Your task to perform on an android device: clear all cookies in the chrome app Image 0: 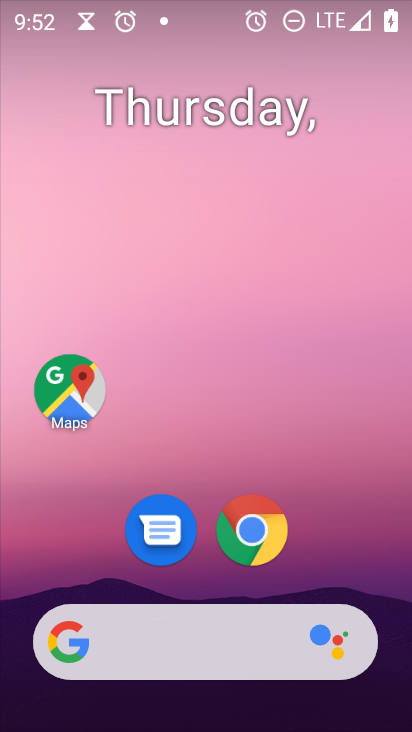
Step 0: drag from (322, 539) to (242, 62)
Your task to perform on an android device: clear all cookies in the chrome app Image 1: 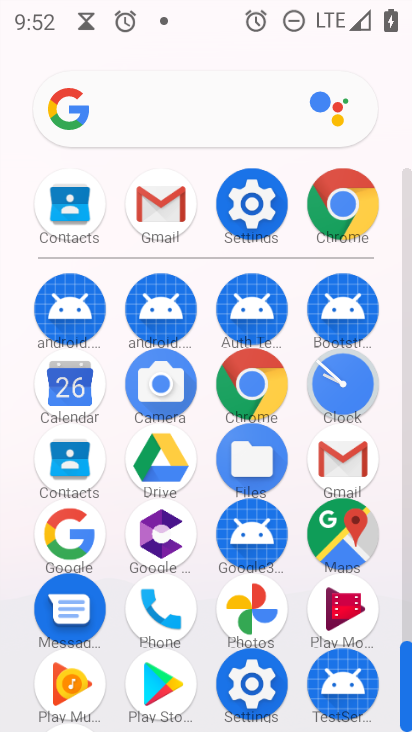
Step 1: drag from (24, 587) to (26, 281)
Your task to perform on an android device: clear all cookies in the chrome app Image 2: 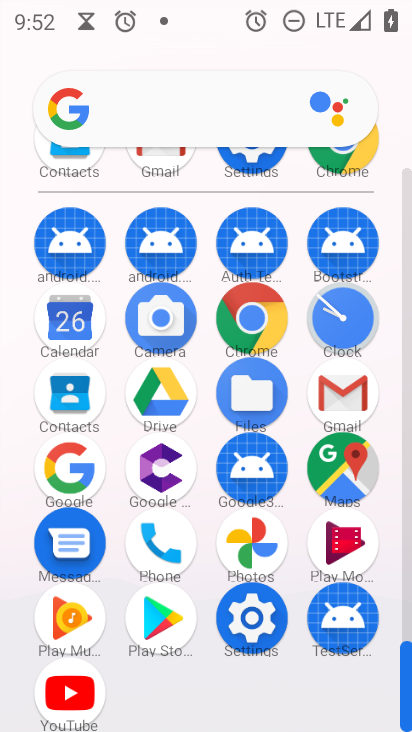
Step 2: click (244, 313)
Your task to perform on an android device: clear all cookies in the chrome app Image 3: 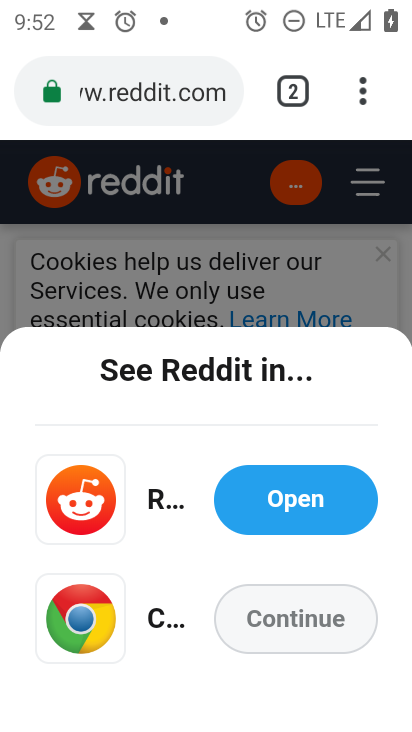
Step 3: drag from (355, 88) to (147, 555)
Your task to perform on an android device: clear all cookies in the chrome app Image 4: 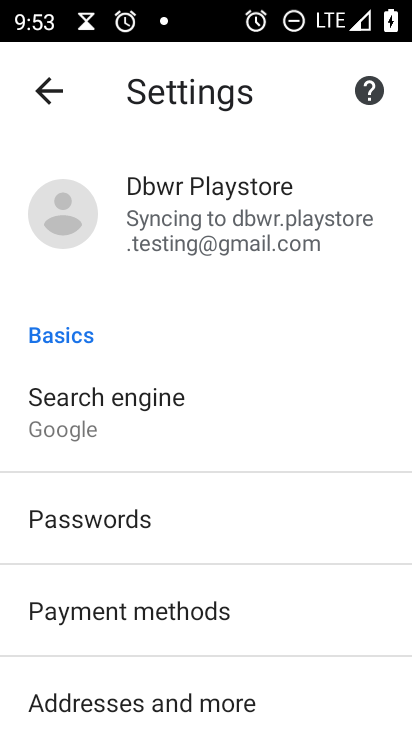
Step 4: drag from (249, 579) to (275, 192)
Your task to perform on an android device: clear all cookies in the chrome app Image 5: 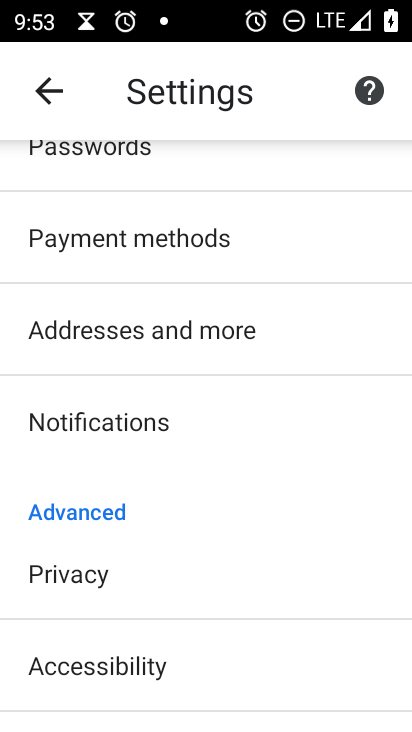
Step 5: click (120, 576)
Your task to perform on an android device: clear all cookies in the chrome app Image 6: 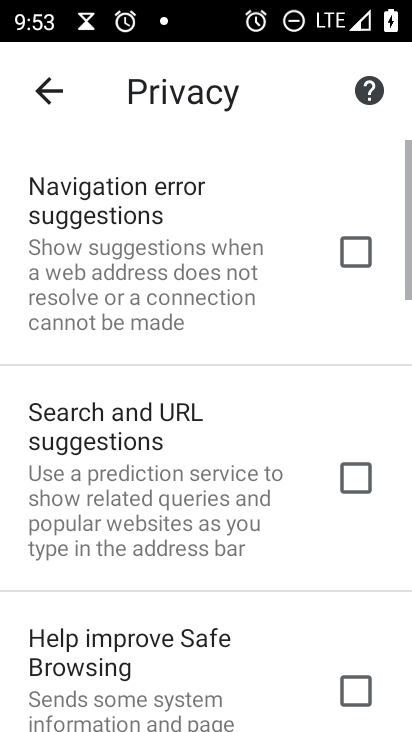
Step 6: drag from (161, 617) to (174, 255)
Your task to perform on an android device: clear all cookies in the chrome app Image 7: 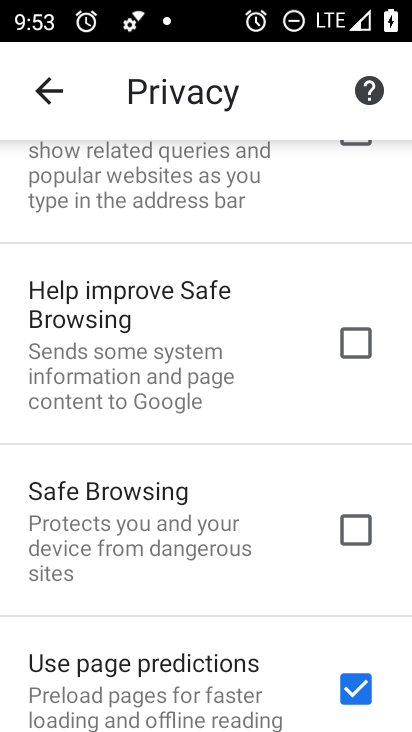
Step 7: drag from (206, 595) to (205, 181)
Your task to perform on an android device: clear all cookies in the chrome app Image 8: 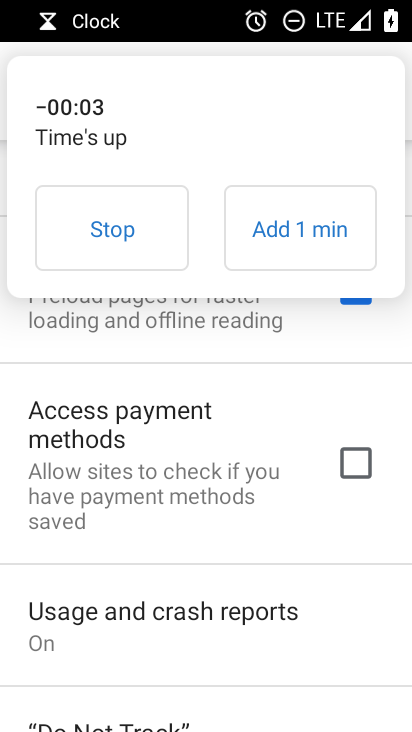
Step 8: click (117, 232)
Your task to perform on an android device: clear all cookies in the chrome app Image 9: 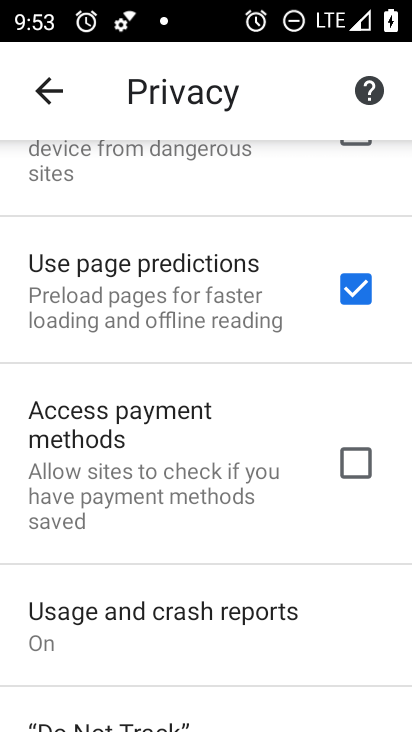
Step 9: drag from (236, 608) to (228, 199)
Your task to perform on an android device: clear all cookies in the chrome app Image 10: 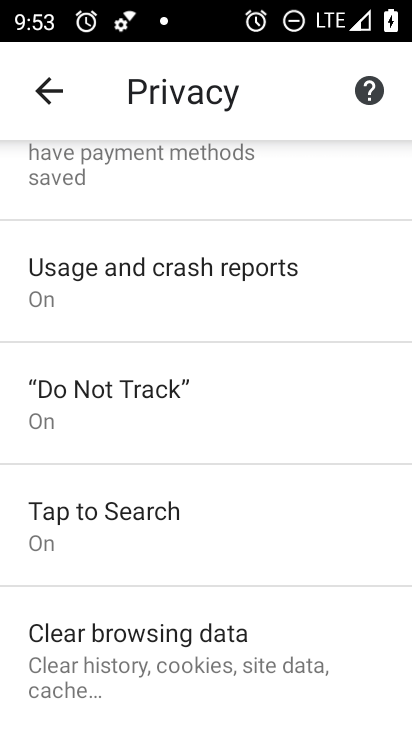
Step 10: drag from (202, 592) to (220, 213)
Your task to perform on an android device: clear all cookies in the chrome app Image 11: 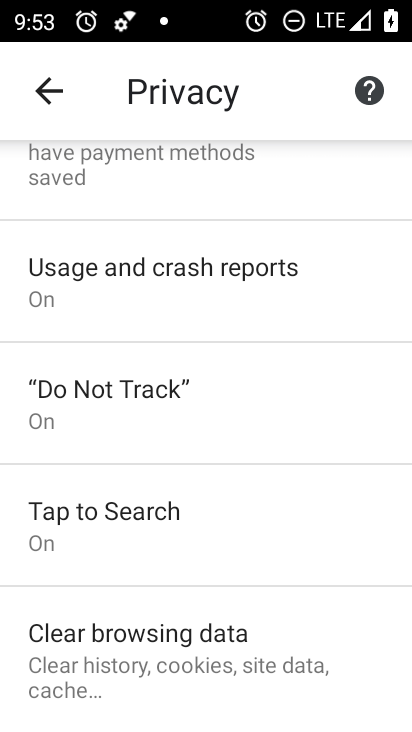
Step 11: click (221, 627)
Your task to perform on an android device: clear all cookies in the chrome app Image 12: 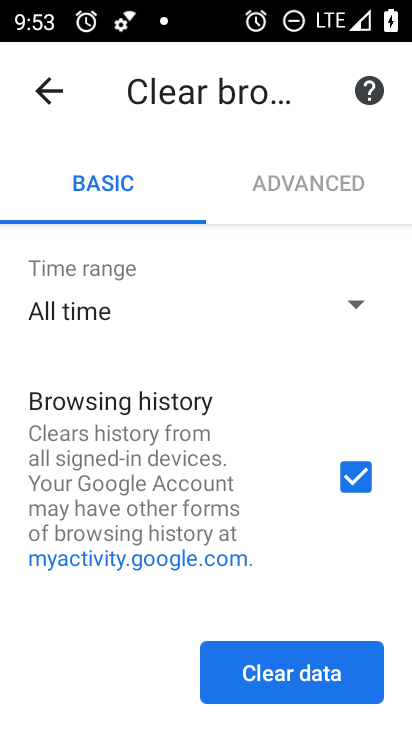
Step 12: drag from (165, 561) to (175, 303)
Your task to perform on an android device: clear all cookies in the chrome app Image 13: 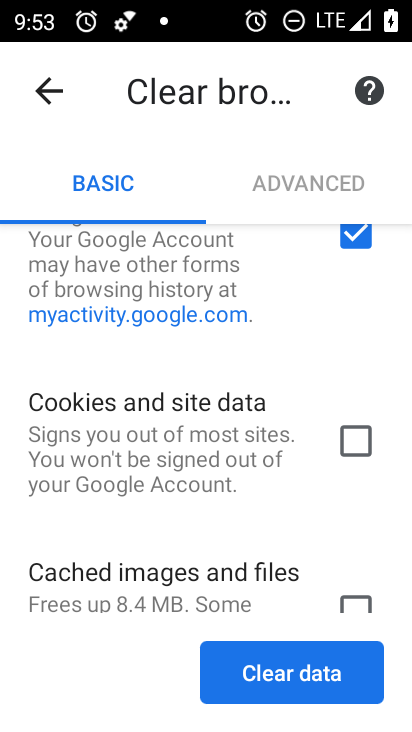
Step 13: click (341, 449)
Your task to perform on an android device: clear all cookies in the chrome app Image 14: 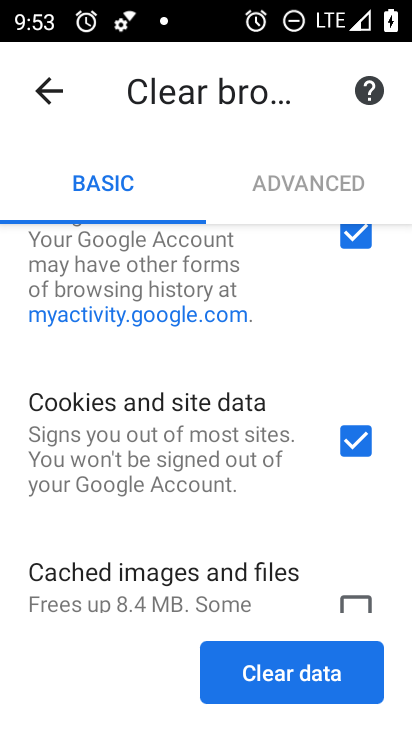
Step 14: drag from (289, 288) to (259, 422)
Your task to perform on an android device: clear all cookies in the chrome app Image 15: 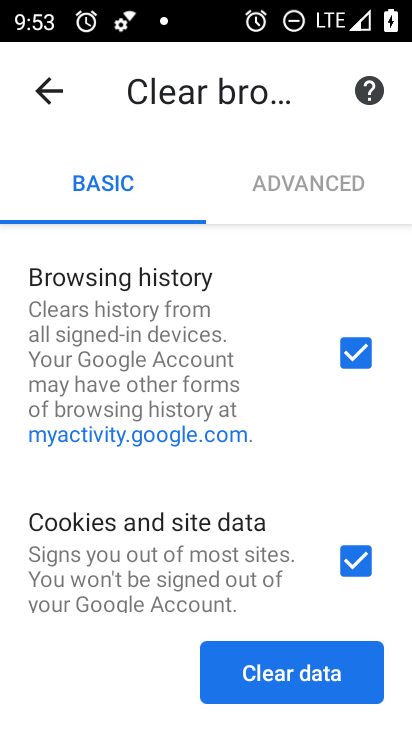
Step 15: click (355, 341)
Your task to perform on an android device: clear all cookies in the chrome app Image 16: 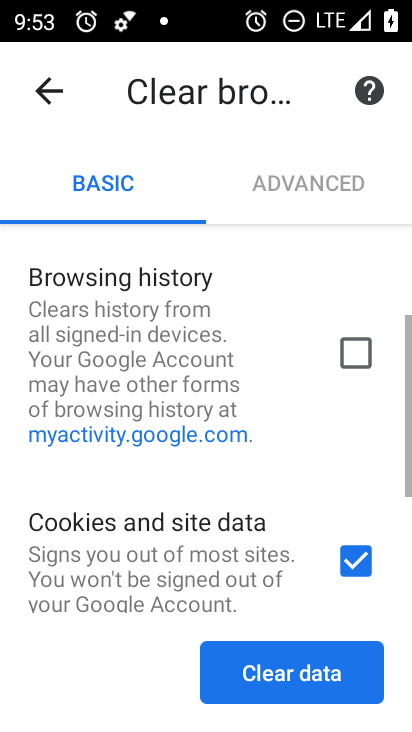
Step 16: drag from (209, 596) to (232, 238)
Your task to perform on an android device: clear all cookies in the chrome app Image 17: 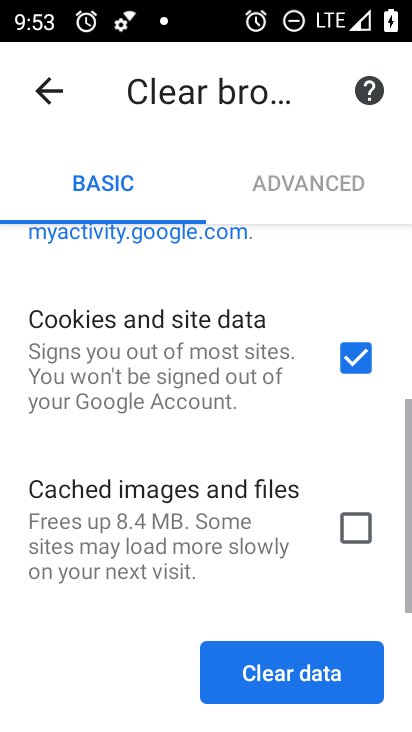
Step 17: click (328, 676)
Your task to perform on an android device: clear all cookies in the chrome app Image 18: 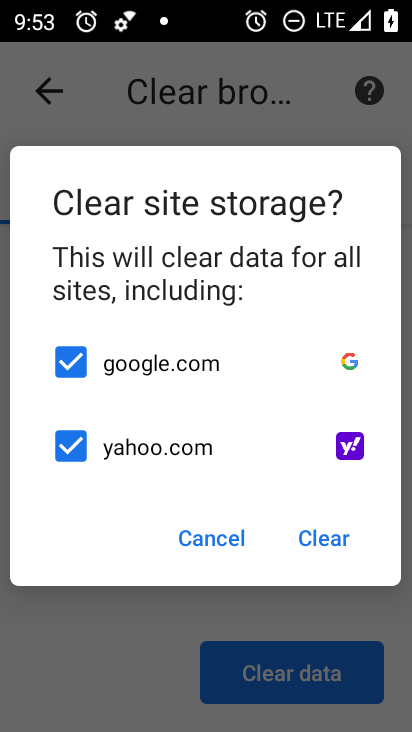
Step 18: click (328, 529)
Your task to perform on an android device: clear all cookies in the chrome app Image 19: 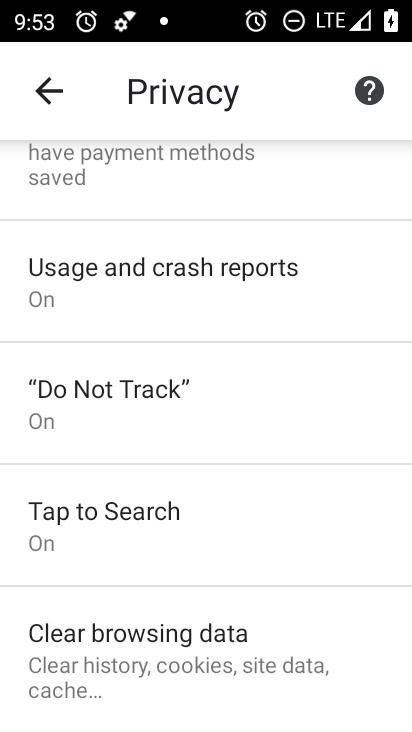
Step 19: task complete